Your task to perform on an android device: Show the shopping cart on ebay.com. Search for "macbook pro" on ebay.com, select the first entry, add it to the cart, then select checkout. Image 0: 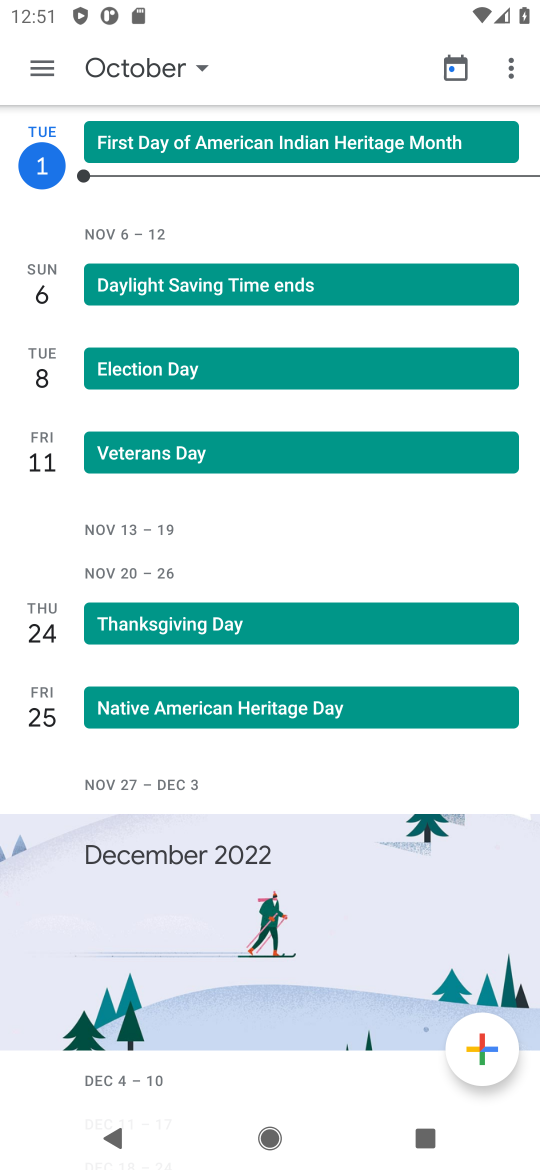
Step 0: press home button
Your task to perform on an android device: Show the shopping cart on ebay.com. Search for "macbook pro" on ebay.com, select the first entry, add it to the cart, then select checkout. Image 1: 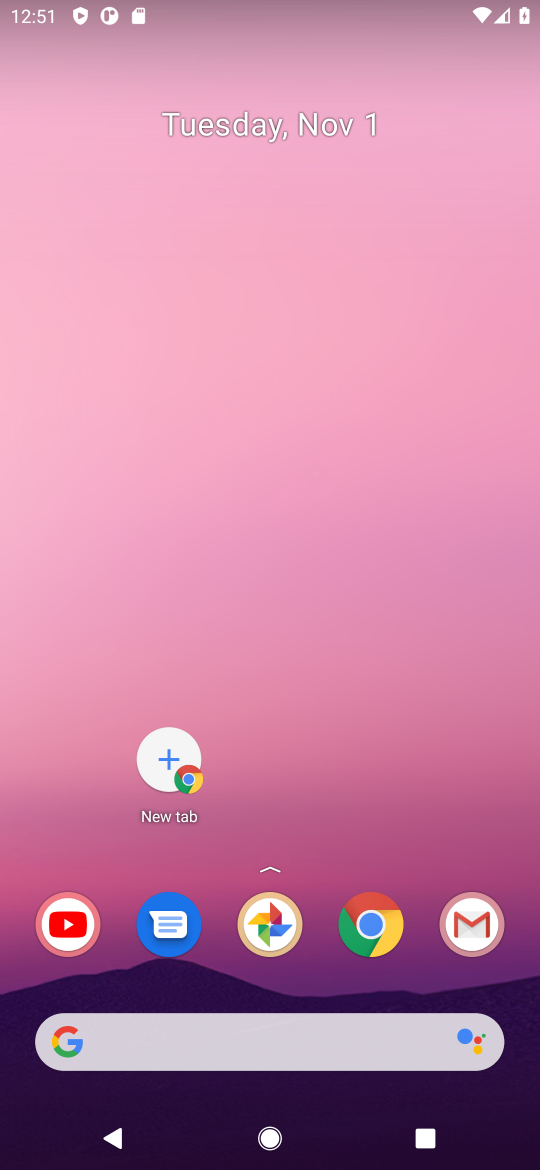
Step 1: click (357, 930)
Your task to perform on an android device: Show the shopping cart on ebay.com. Search for "macbook pro" on ebay.com, select the first entry, add it to the cart, then select checkout. Image 2: 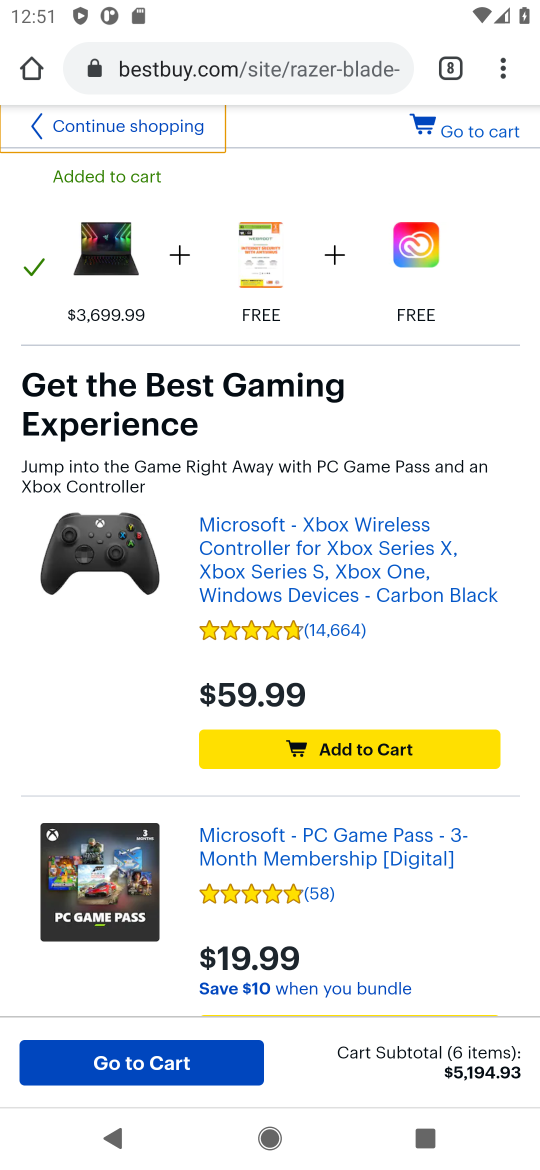
Step 2: click (386, 941)
Your task to perform on an android device: Show the shopping cart on ebay.com. Search for "macbook pro" on ebay.com, select the first entry, add it to the cart, then select checkout. Image 3: 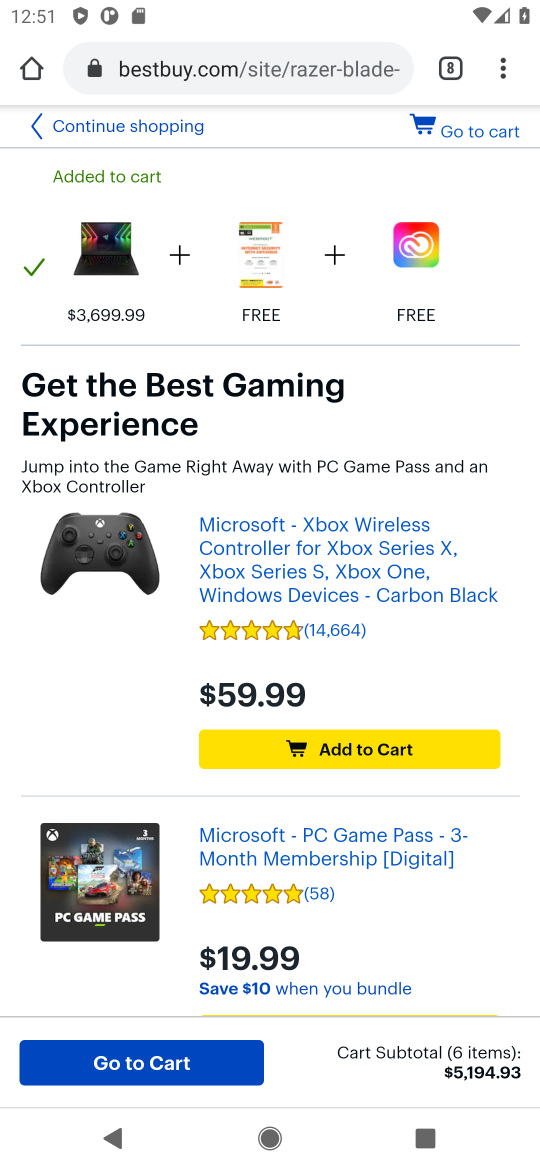
Step 3: click (281, 69)
Your task to perform on an android device: Show the shopping cart on ebay.com. Search for "macbook pro" on ebay.com, select the first entry, add it to the cart, then select checkout. Image 4: 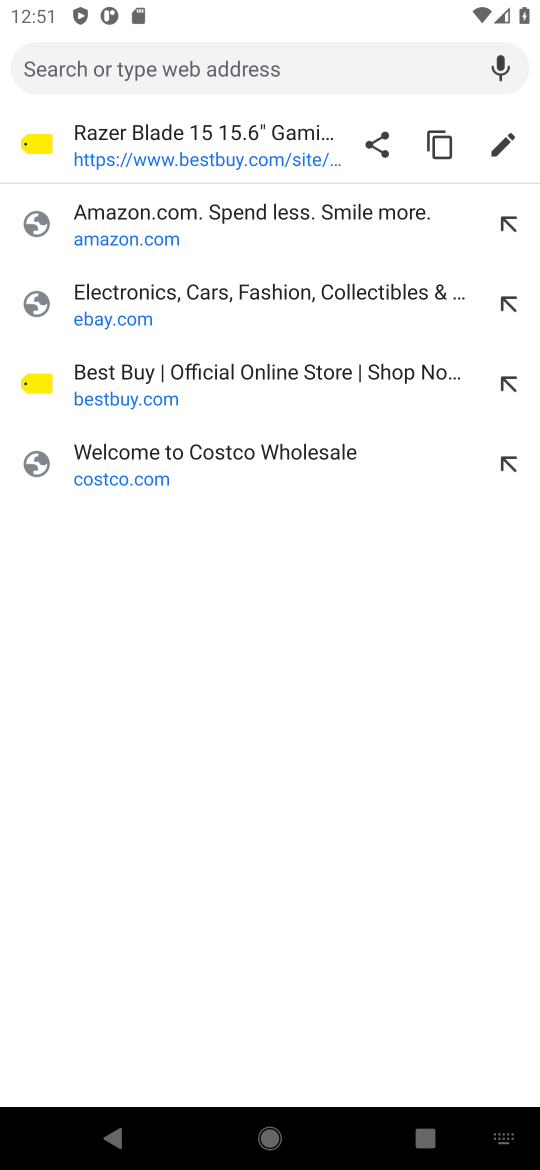
Step 4: type "ebay.com"
Your task to perform on an android device: Show the shopping cart on ebay.com. Search for "macbook pro" on ebay.com, select the first entry, add it to the cart, then select checkout. Image 5: 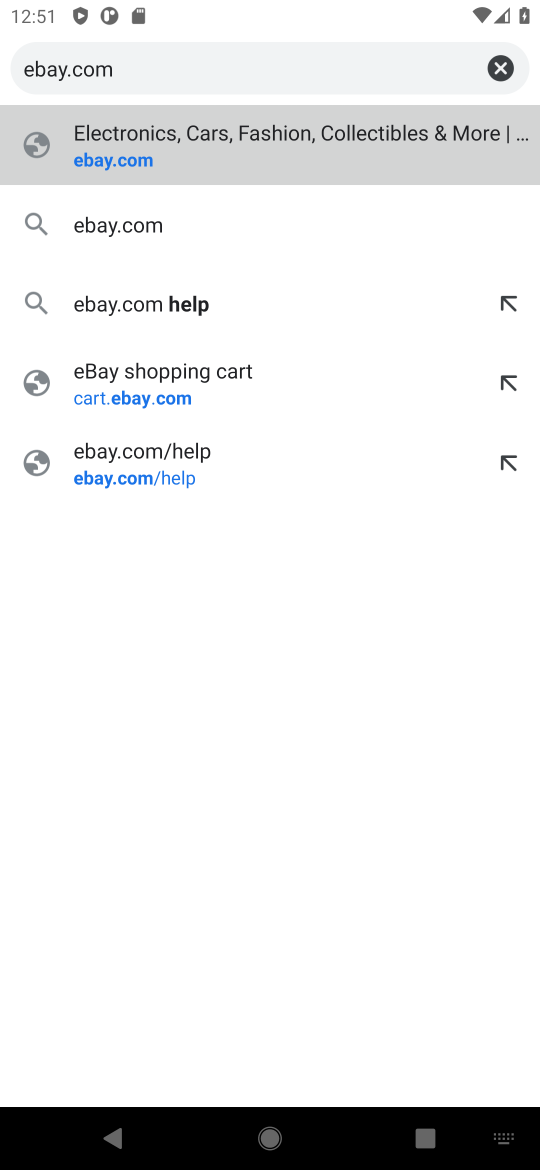
Step 5: type ""
Your task to perform on an android device: Show the shopping cart on ebay.com. Search for "macbook pro" on ebay.com, select the first entry, add it to the cart, then select checkout. Image 6: 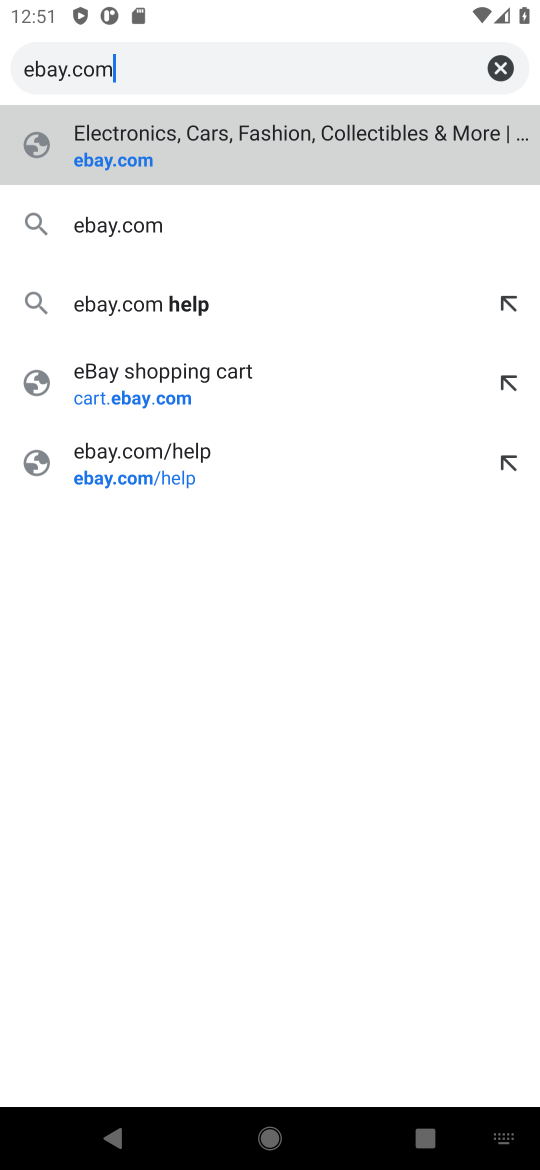
Step 6: click (272, 180)
Your task to perform on an android device: Show the shopping cart on ebay.com. Search for "macbook pro" on ebay.com, select the first entry, add it to the cart, then select checkout. Image 7: 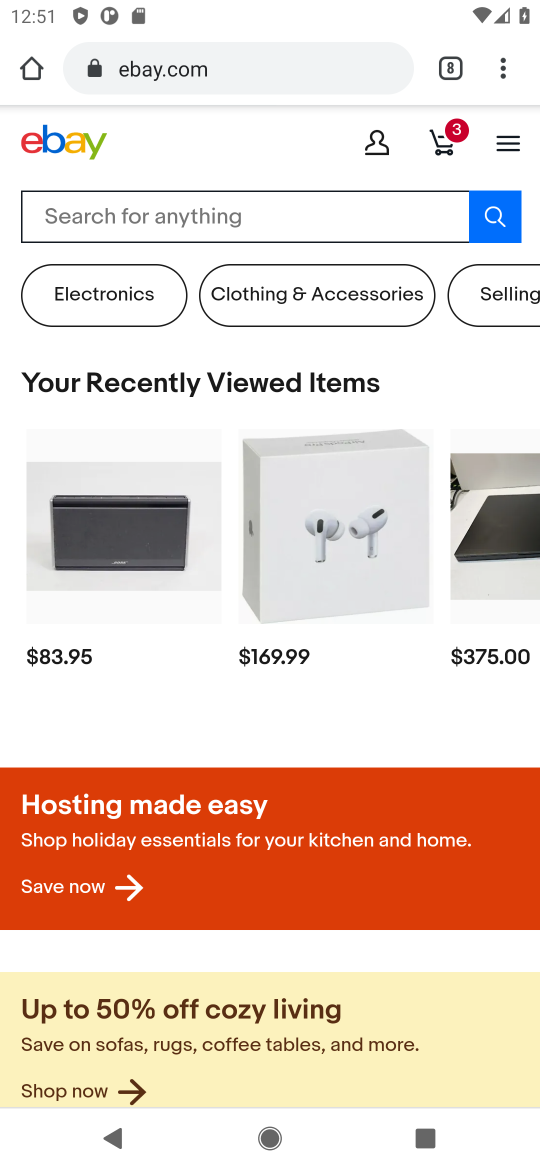
Step 7: click (245, 210)
Your task to perform on an android device: Show the shopping cart on ebay.com. Search for "macbook pro" on ebay.com, select the first entry, add it to the cart, then select checkout. Image 8: 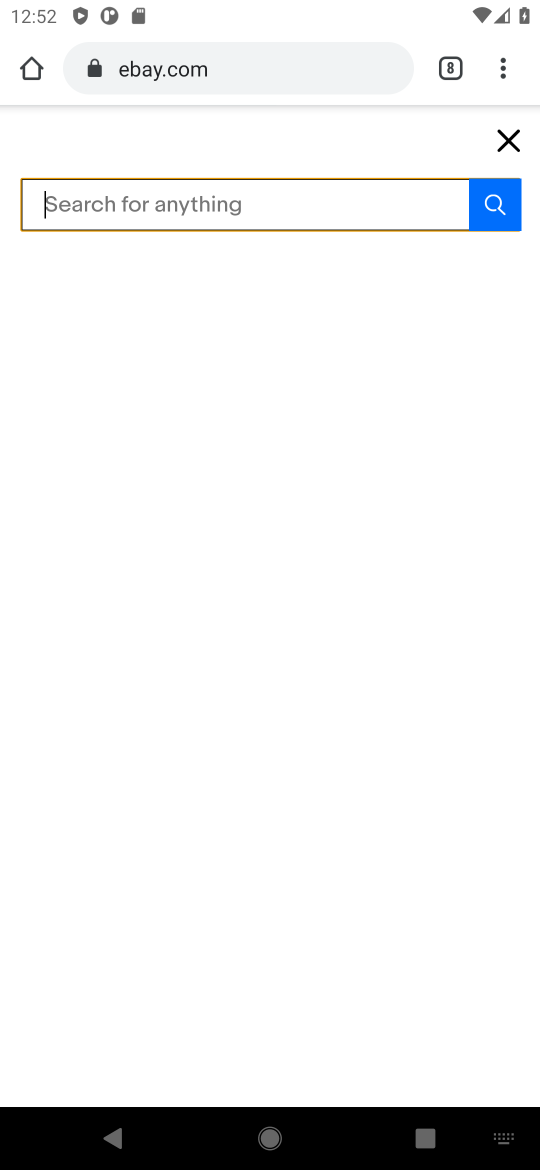
Step 8: type "macbook pro"
Your task to perform on an android device: Show the shopping cart on ebay.com. Search for "macbook pro" on ebay.com, select the first entry, add it to the cart, then select checkout. Image 9: 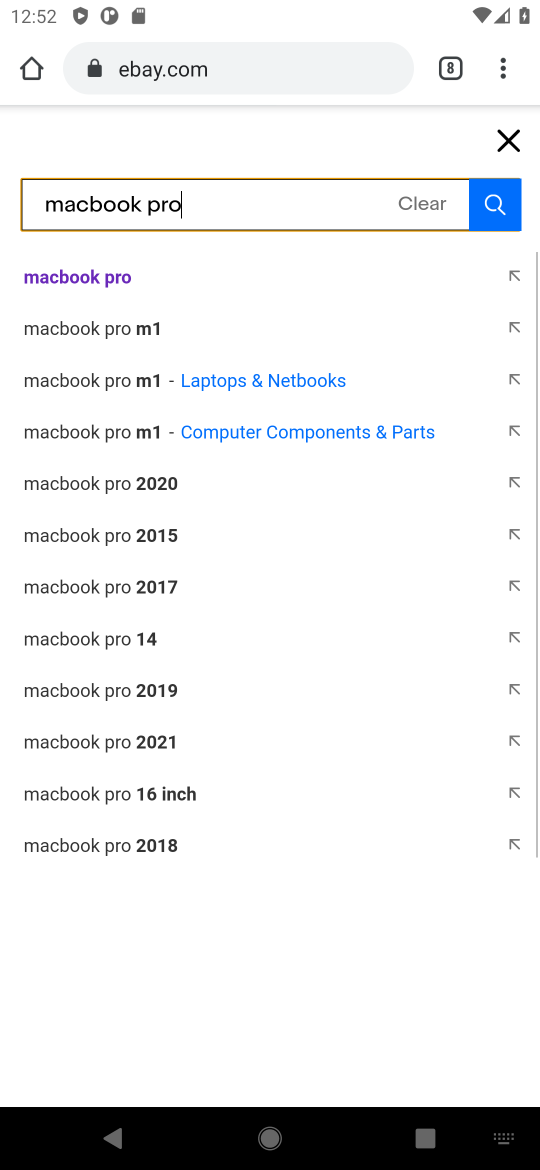
Step 9: type ""
Your task to perform on an android device: Show the shopping cart on ebay.com. Search for "macbook pro" on ebay.com, select the first entry, add it to the cart, then select checkout. Image 10: 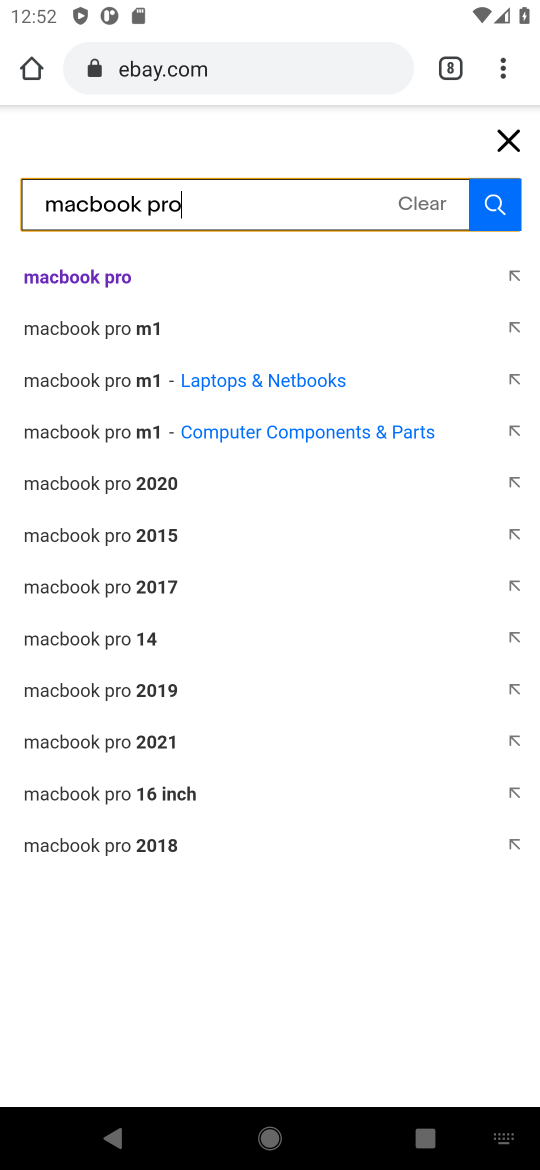
Step 10: click (69, 277)
Your task to perform on an android device: Show the shopping cart on ebay.com. Search for "macbook pro" on ebay.com, select the first entry, add it to the cart, then select checkout. Image 11: 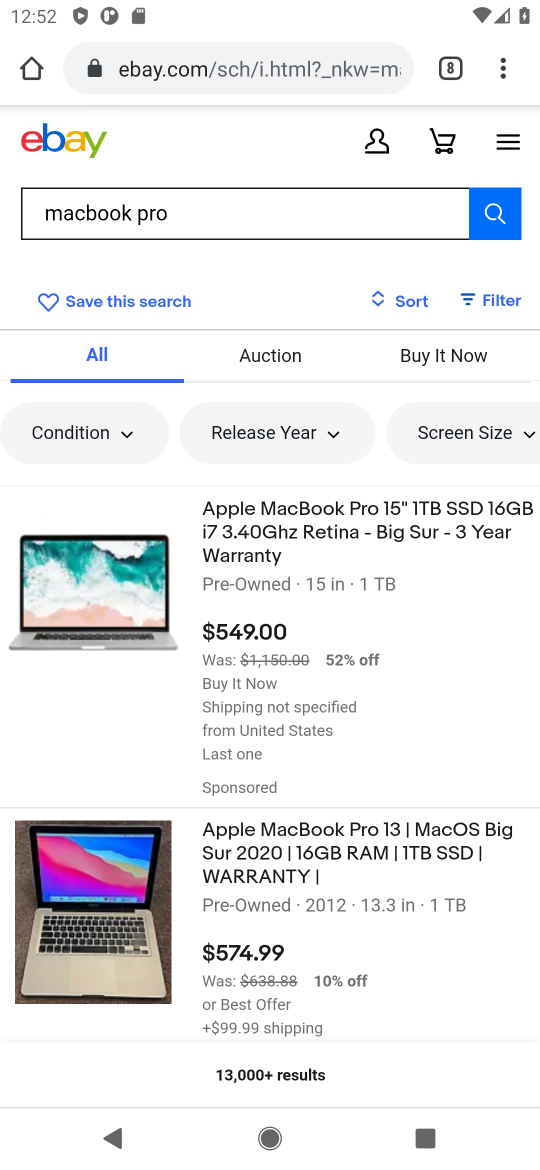
Step 11: drag from (190, 949) to (335, 422)
Your task to perform on an android device: Show the shopping cart on ebay.com. Search for "macbook pro" on ebay.com, select the first entry, add it to the cart, then select checkout. Image 12: 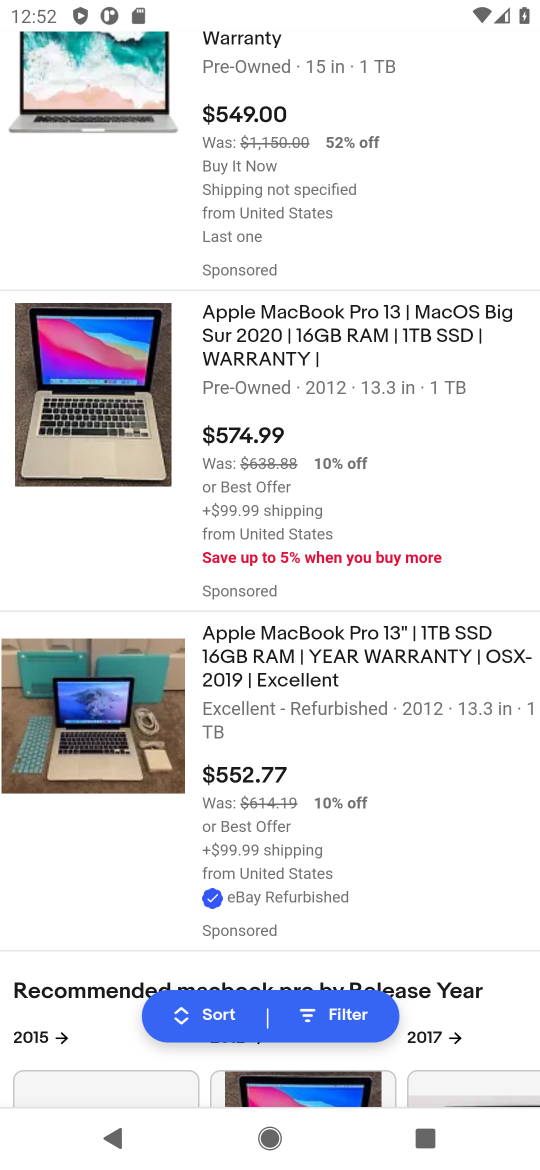
Step 12: click (318, 314)
Your task to perform on an android device: Show the shopping cart on ebay.com. Search for "macbook pro" on ebay.com, select the first entry, add it to the cart, then select checkout. Image 13: 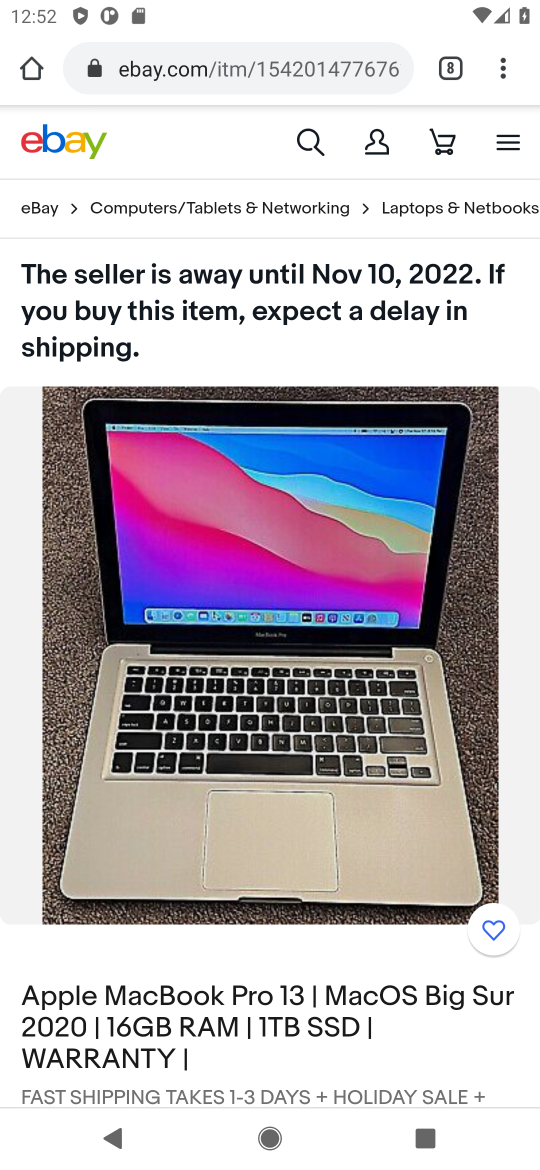
Step 13: drag from (172, 1018) to (226, 495)
Your task to perform on an android device: Show the shopping cart on ebay.com. Search for "macbook pro" on ebay.com, select the first entry, add it to the cart, then select checkout. Image 14: 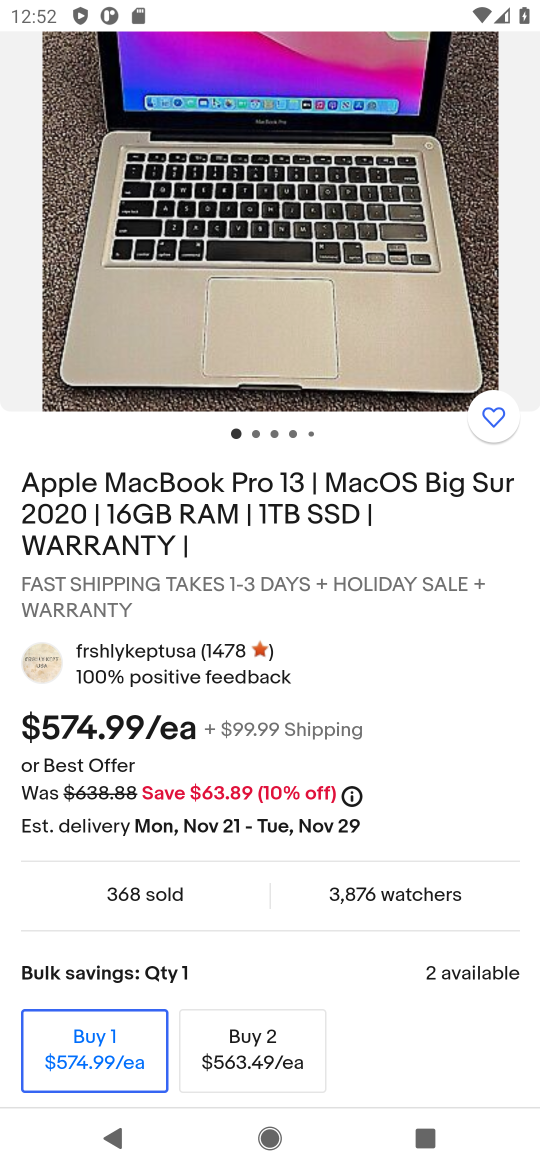
Step 14: drag from (268, 739) to (388, 136)
Your task to perform on an android device: Show the shopping cart on ebay.com. Search for "macbook pro" on ebay.com, select the first entry, add it to the cart, then select checkout. Image 15: 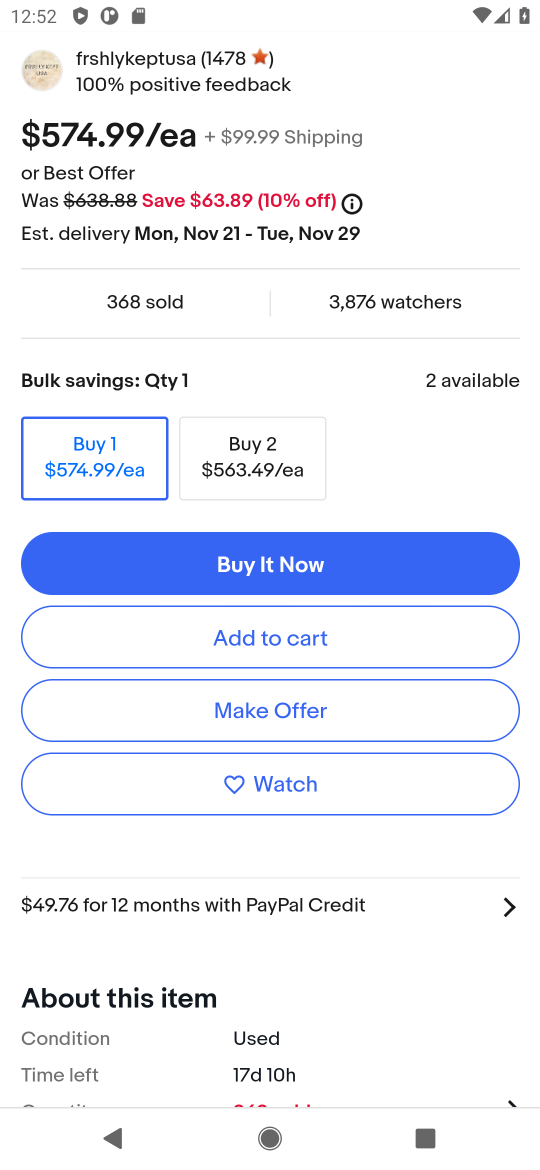
Step 15: click (235, 650)
Your task to perform on an android device: Show the shopping cart on ebay.com. Search for "macbook pro" on ebay.com, select the first entry, add it to the cart, then select checkout. Image 16: 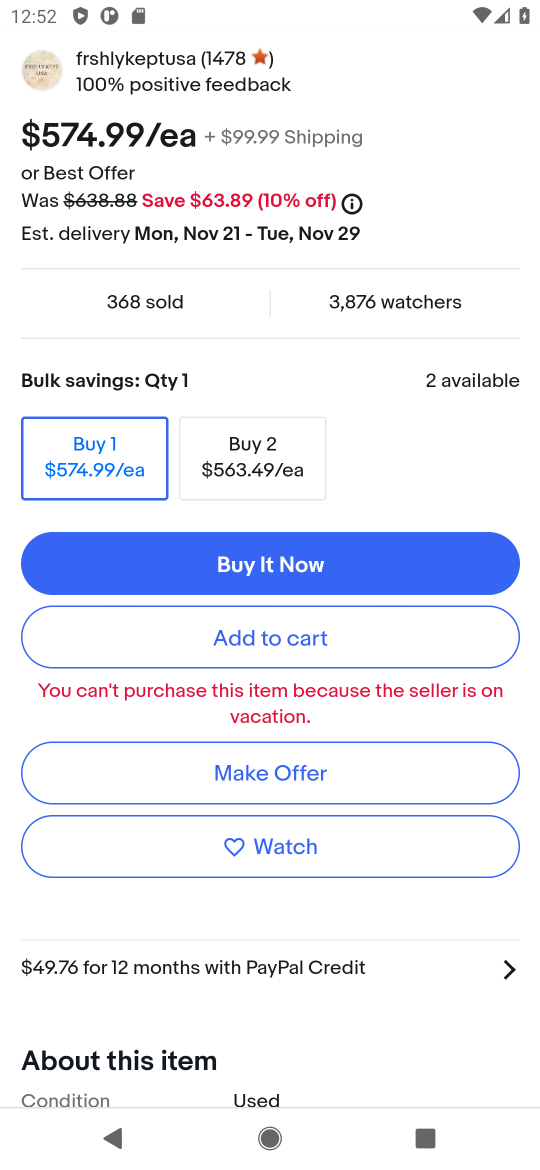
Step 16: drag from (378, 369) to (250, 995)
Your task to perform on an android device: Show the shopping cart on ebay.com. Search for "macbook pro" on ebay.com, select the first entry, add it to the cart, then select checkout. Image 17: 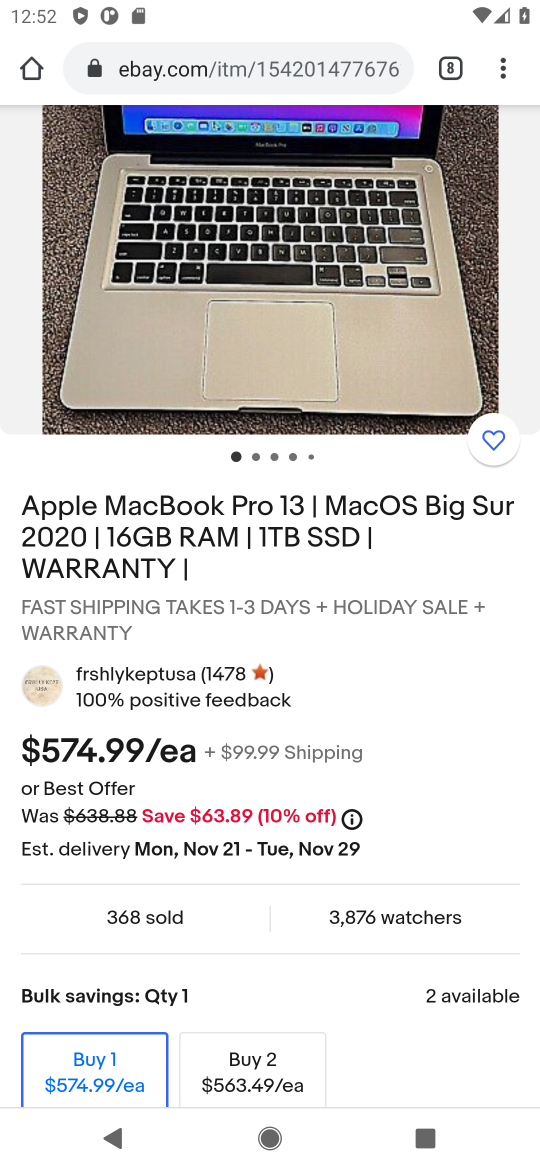
Step 17: press back button
Your task to perform on an android device: Show the shopping cart on ebay.com. Search for "macbook pro" on ebay.com, select the first entry, add it to the cart, then select checkout. Image 18: 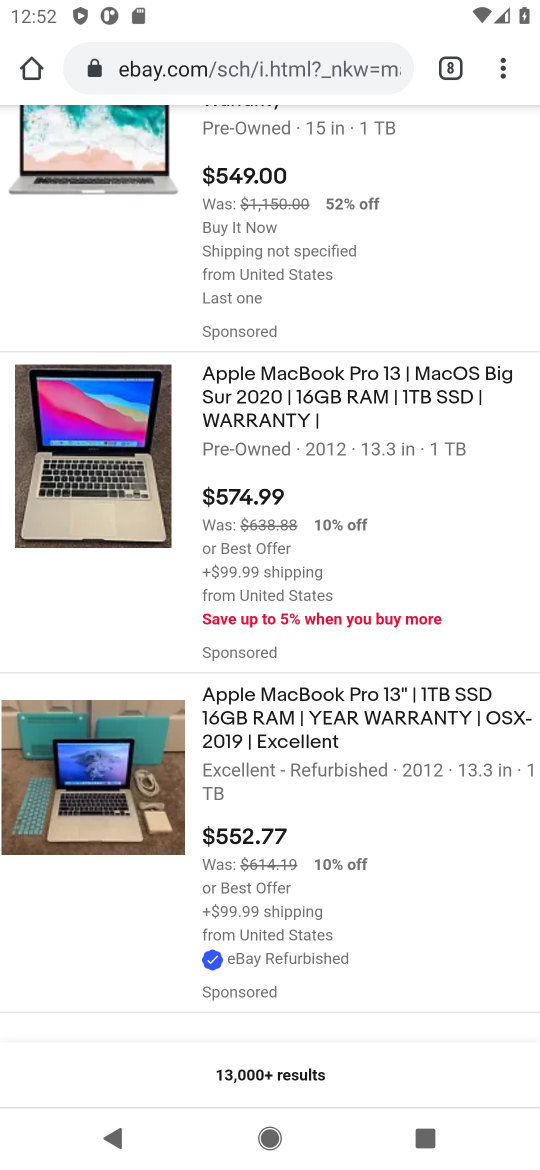
Step 18: click (147, 163)
Your task to perform on an android device: Show the shopping cart on ebay.com. Search for "macbook pro" on ebay.com, select the first entry, add it to the cart, then select checkout. Image 19: 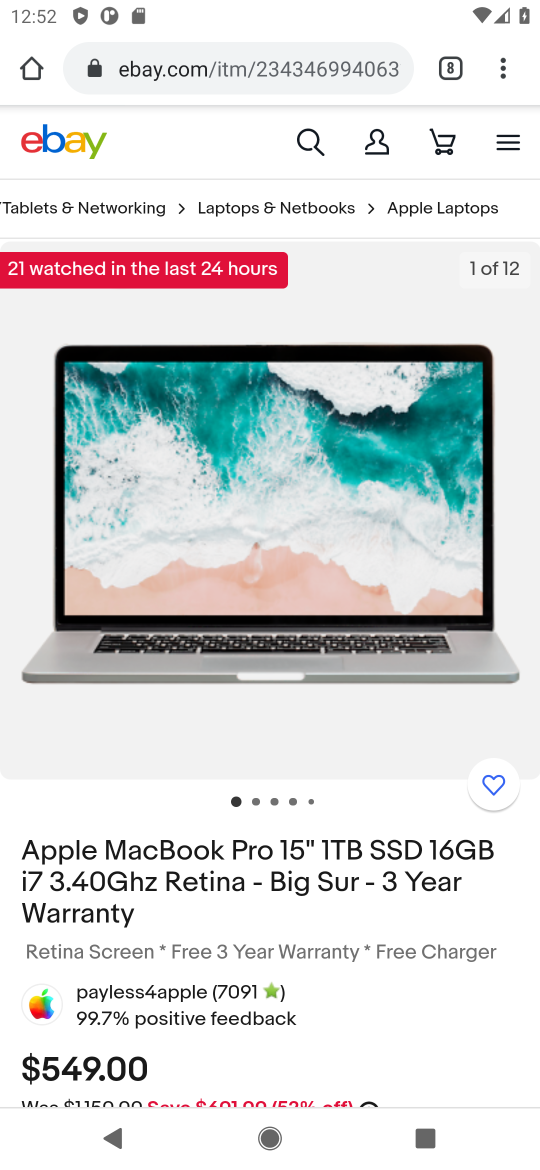
Step 19: drag from (296, 679) to (292, 366)
Your task to perform on an android device: Show the shopping cart on ebay.com. Search for "macbook pro" on ebay.com, select the first entry, add it to the cart, then select checkout. Image 20: 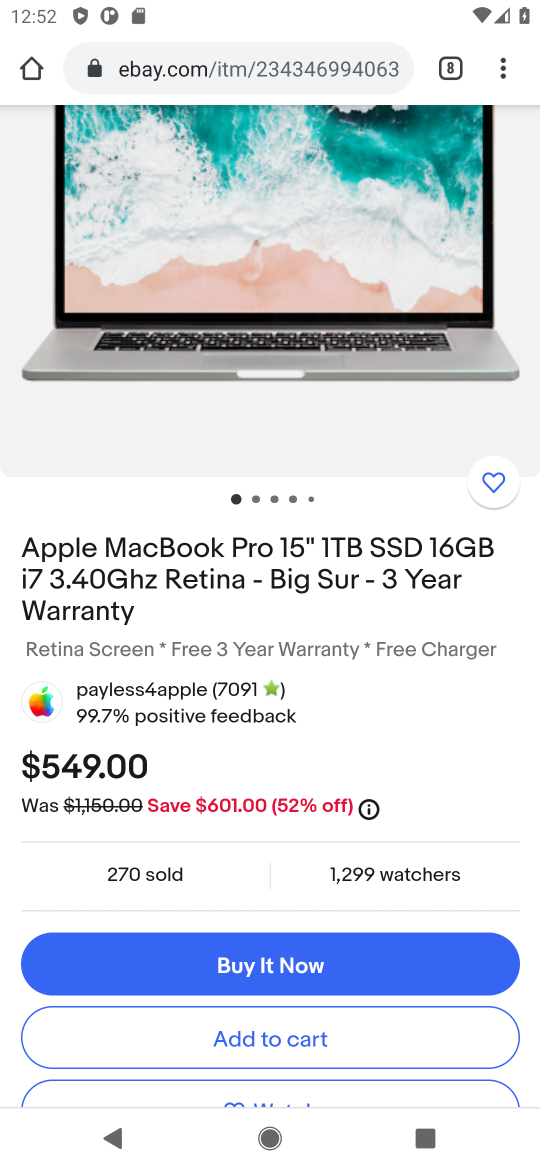
Step 20: click (232, 1032)
Your task to perform on an android device: Show the shopping cart on ebay.com. Search for "macbook pro" on ebay.com, select the first entry, add it to the cart, then select checkout. Image 21: 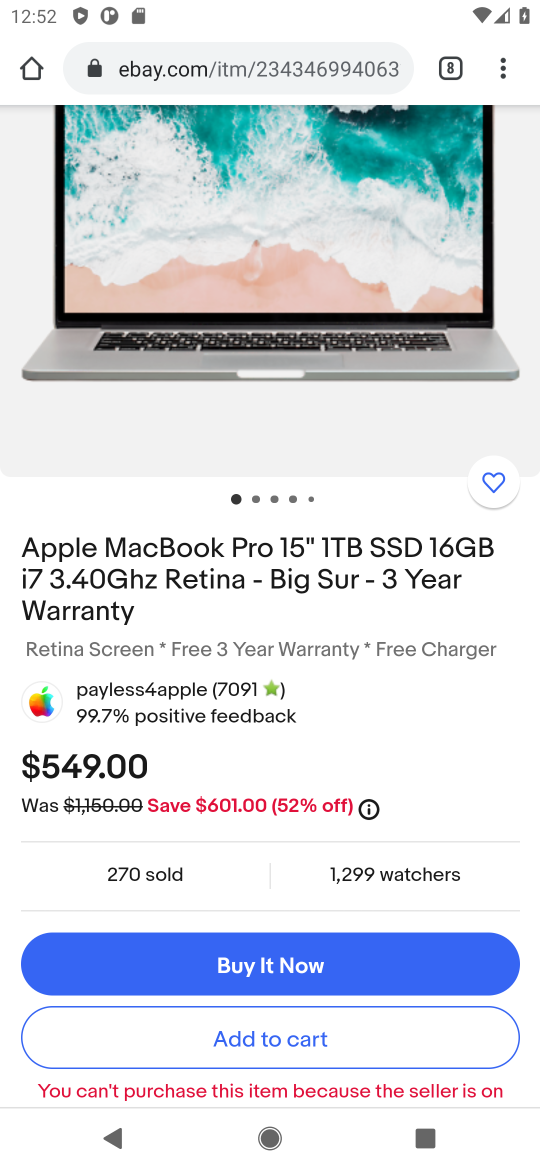
Step 21: drag from (443, 966) to (531, 505)
Your task to perform on an android device: Show the shopping cart on ebay.com. Search for "macbook pro" on ebay.com, select the first entry, add it to the cart, then select checkout. Image 22: 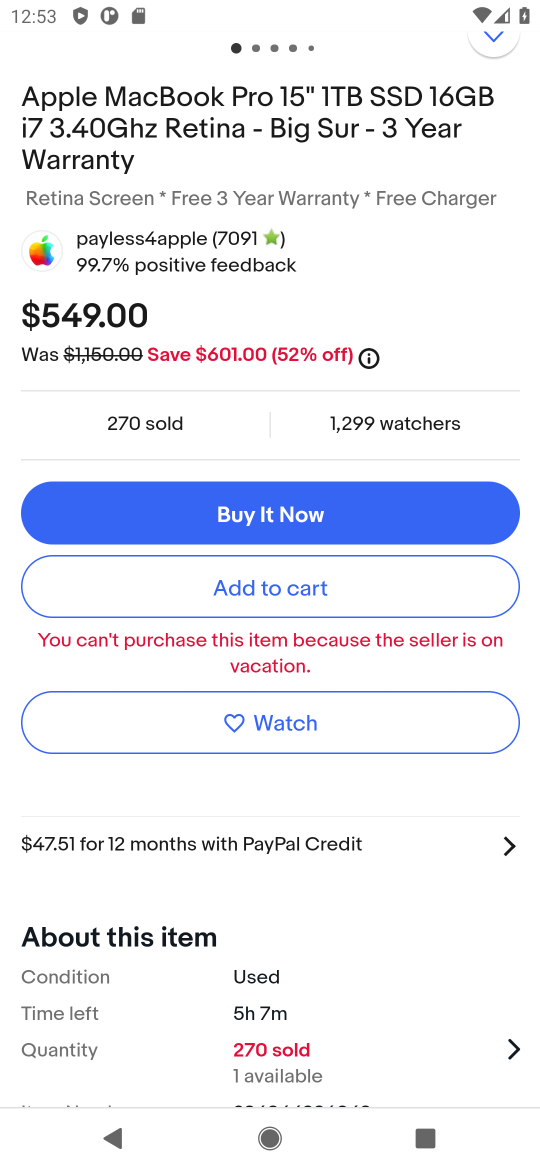
Step 22: drag from (470, 730) to (476, 116)
Your task to perform on an android device: Show the shopping cart on ebay.com. Search for "macbook pro" on ebay.com, select the first entry, add it to the cart, then select checkout. Image 23: 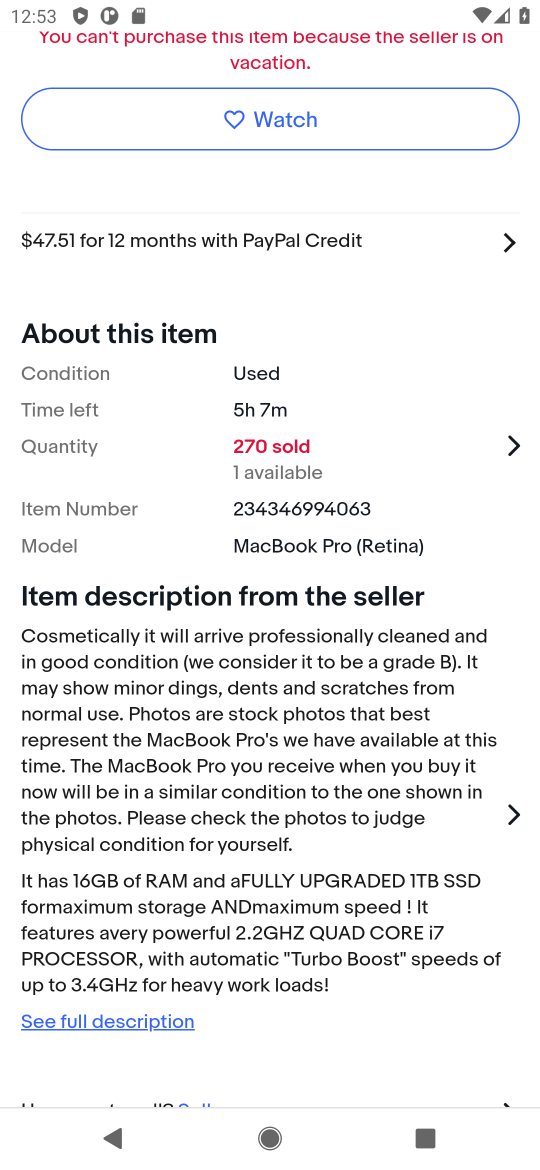
Step 23: drag from (246, 340) to (259, 105)
Your task to perform on an android device: Show the shopping cart on ebay.com. Search for "macbook pro" on ebay.com, select the first entry, add it to the cart, then select checkout. Image 24: 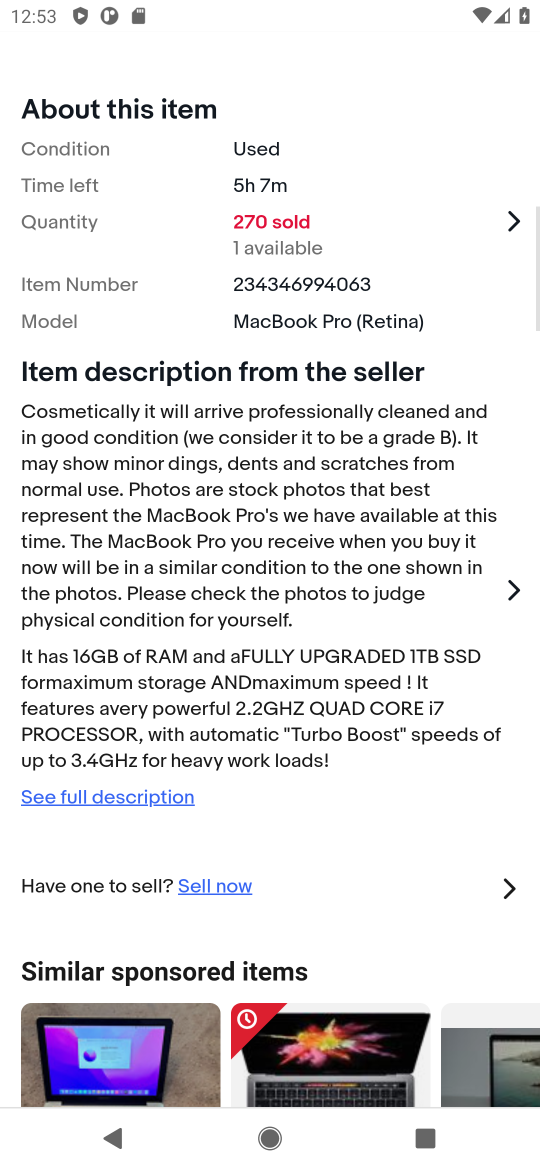
Step 24: drag from (246, 851) to (268, 169)
Your task to perform on an android device: Show the shopping cart on ebay.com. Search for "macbook pro" on ebay.com, select the first entry, add it to the cart, then select checkout. Image 25: 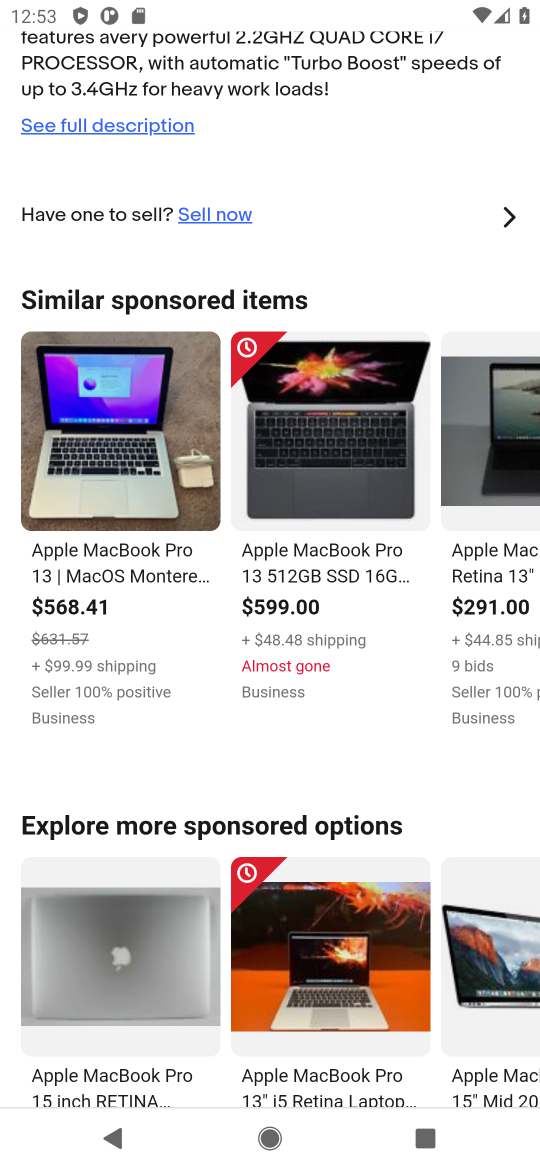
Step 25: drag from (156, 274) to (288, 831)
Your task to perform on an android device: Show the shopping cart on ebay.com. Search for "macbook pro" on ebay.com, select the first entry, add it to the cart, then select checkout. Image 26: 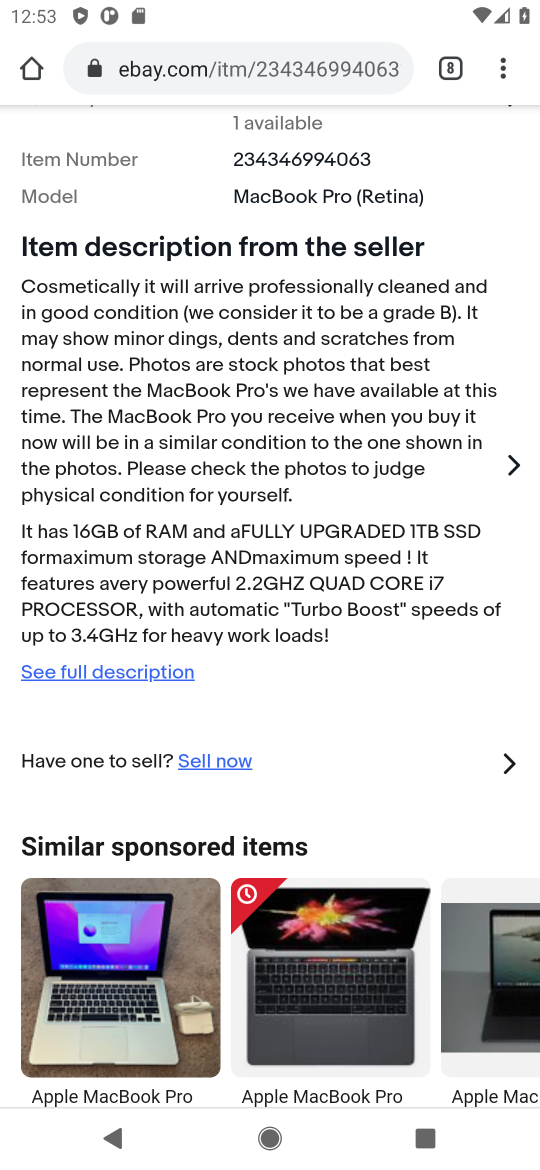
Step 26: drag from (156, 370) to (289, 1023)
Your task to perform on an android device: Show the shopping cart on ebay.com. Search for "macbook pro" on ebay.com, select the first entry, add it to the cart, then select checkout. Image 27: 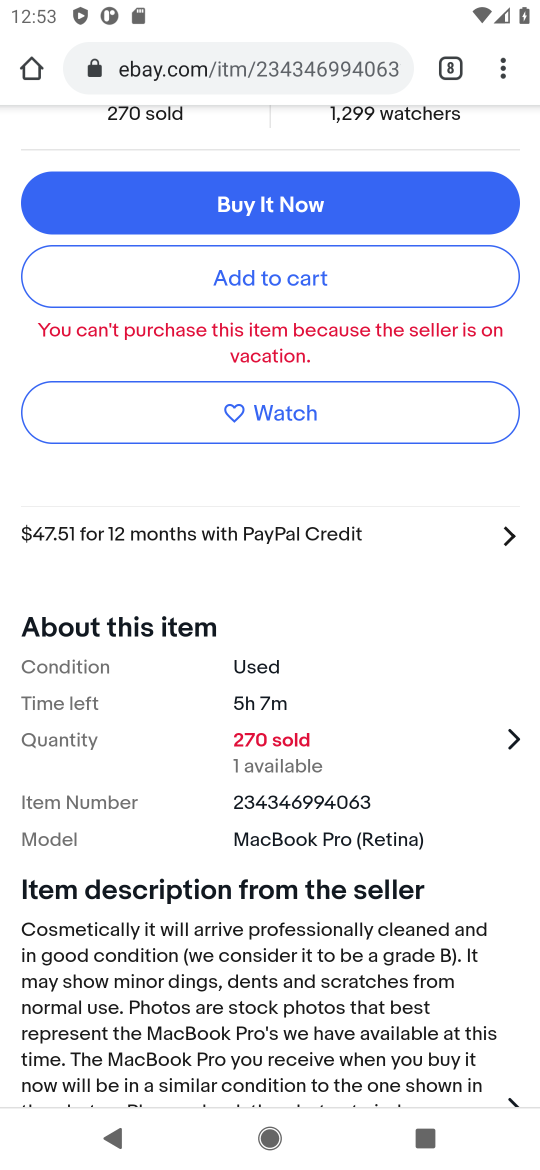
Step 27: drag from (277, 758) to (239, 1023)
Your task to perform on an android device: Show the shopping cart on ebay.com. Search for "macbook pro" on ebay.com, select the first entry, add it to the cart, then select checkout. Image 28: 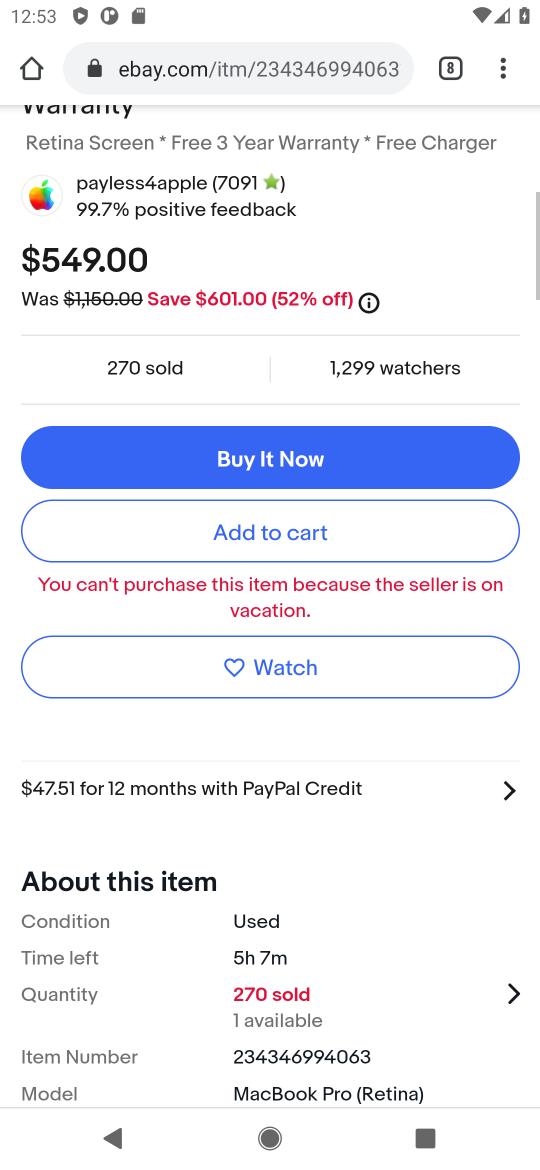
Step 28: drag from (134, 900) to (147, 315)
Your task to perform on an android device: Show the shopping cart on ebay.com. Search for "macbook pro" on ebay.com, select the first entry, add it to the cart, then select checkout. Image 29: 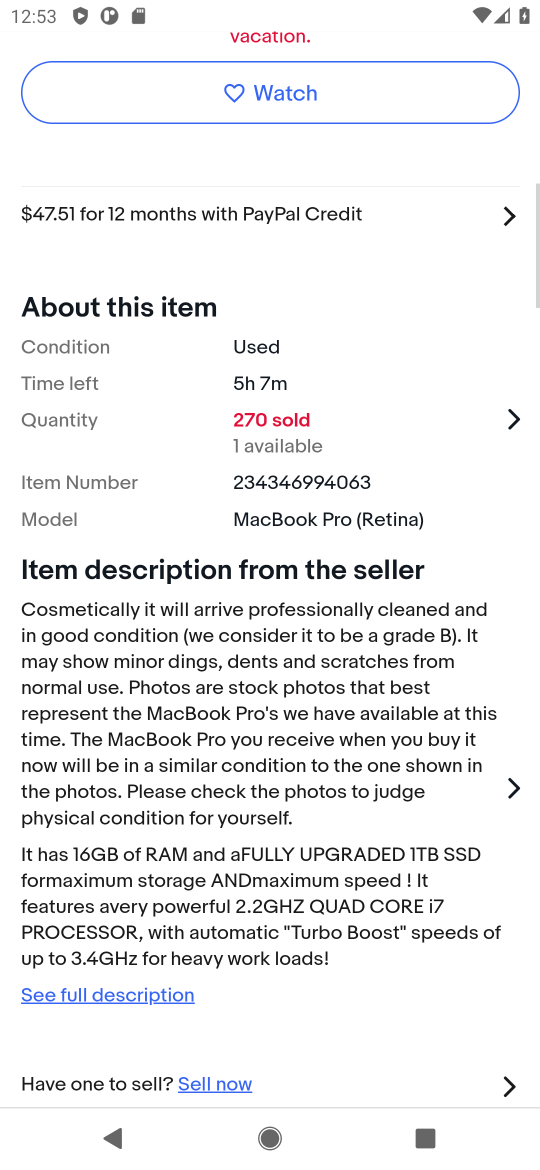
Step 29: drag from (345, 928) to (317, 446)
Your task to perform on an android device: Show the shopping cart on ebay.com. Search for "macbook pro" on ebay.com, select the first entry, add it to the cart, then select checkout. Image 30: 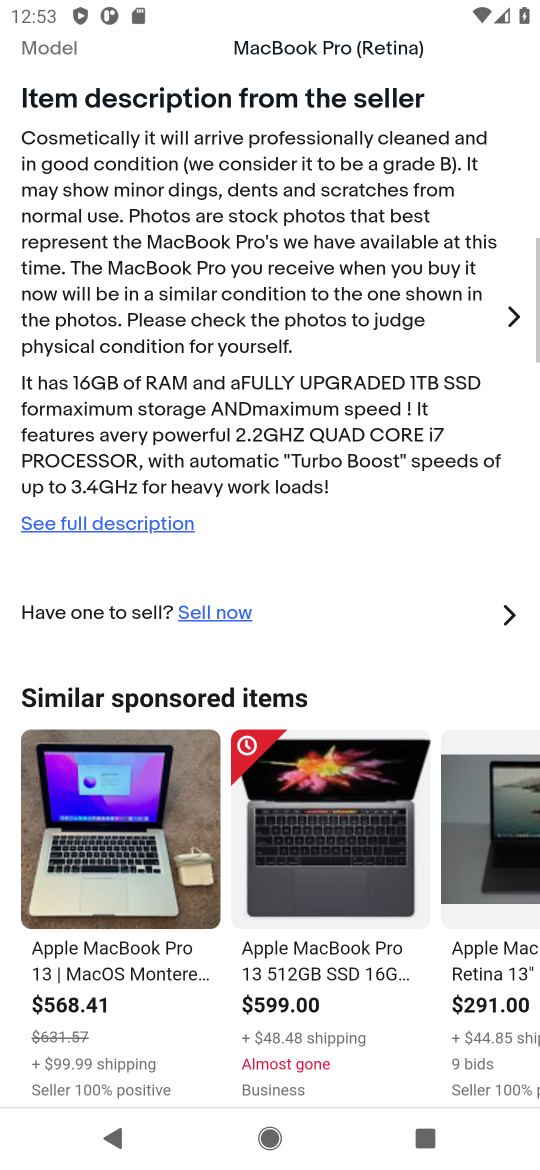
Step 30: drag from (272, 964) to (275, 452)
Your task to perform on an android device: Show the shopping cart on ebay.com. Search for "macbook pro" on ebay.com, select the first entry, add it to the cart, then select checkout. Image 31: 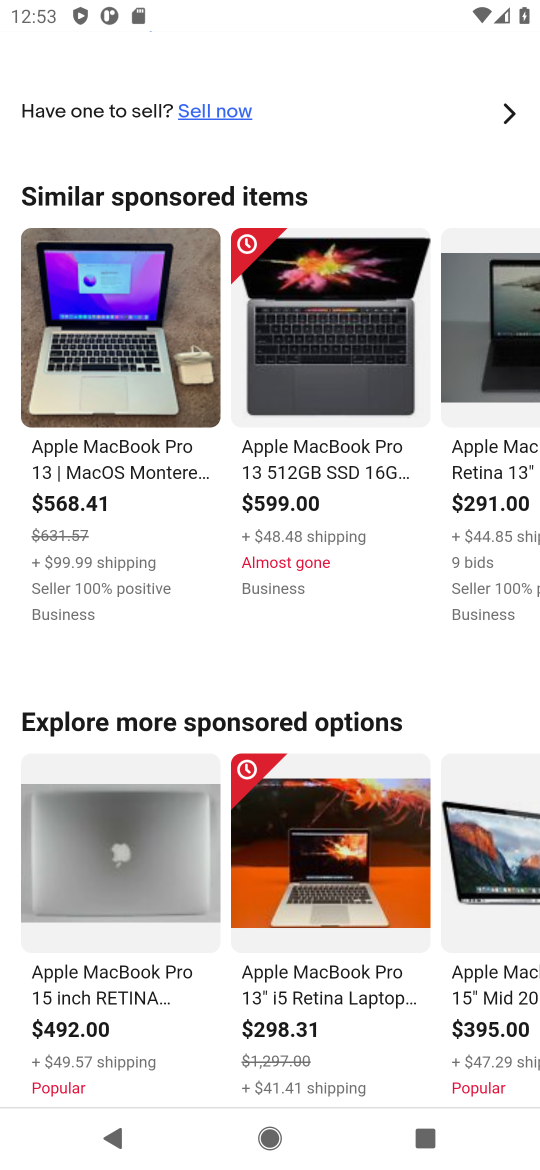
Step 31: click (64, 388)
Your task to perform on an android device: Show the shopping cart on ebay.com. Search for "macbook pro" on ebay.com, select the first entry, add it to the cart, then select checkout. Image 32: 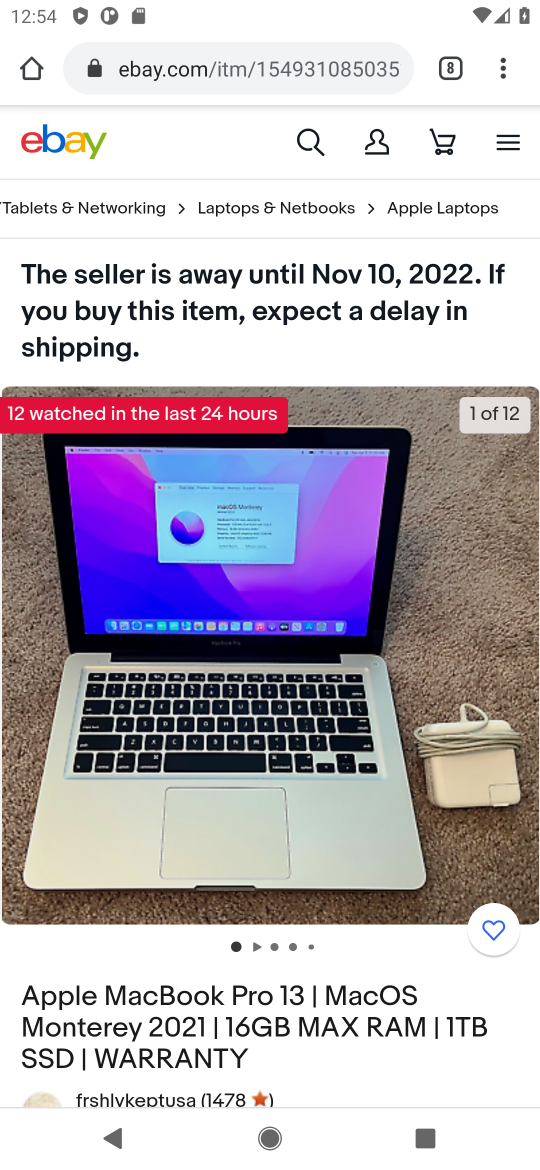
Step 32: drag from (218, 787) to (229, 293)
Your task to perform on an android device: Show the shopping cart on ebay.com. Search for "macbook pro" on ebay.com, select the first entry, add it to the cart, then select checkout. Image 33: 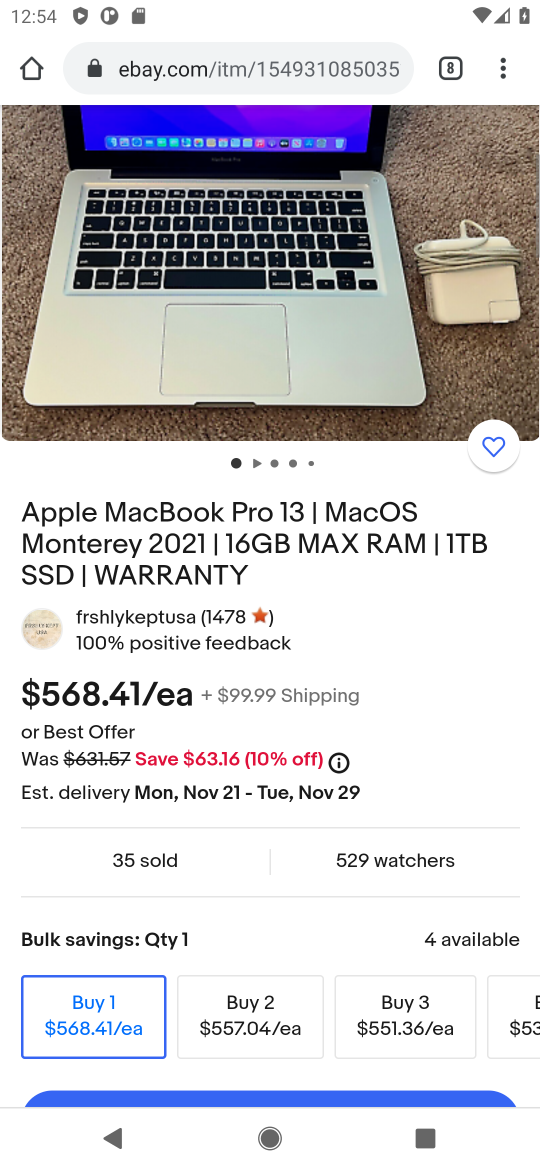
Step 33: drag from (257, 941) to (226, 394)
Your task to perform on an android device: Show the shopping cart on ebay.com. Search for "macbook pro" on ebay.com, select the first entry, add it to the cart, then select checkout. Image 34: 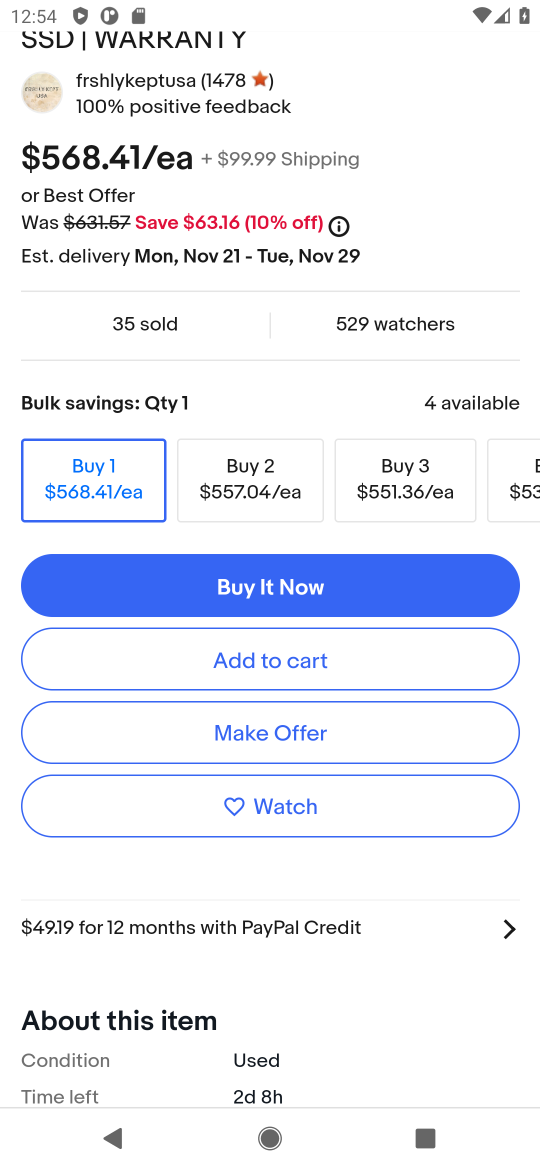
Step 34: click (229, 647)
Your task to perform on an android device: Show the shopping cart on ebay.com. Search for "macbook pro" on ebay.com, select the first entry, add it to the cart, then select checkout. Image 35: 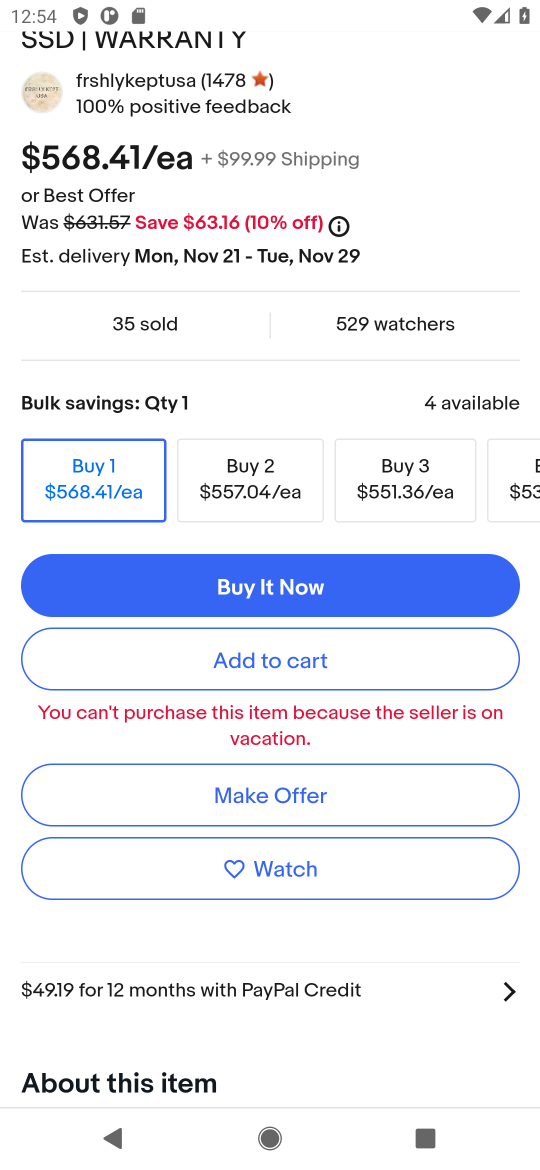
Step 35: task complete